Your task to perform on an android device: open app "Facebook" Image 0: 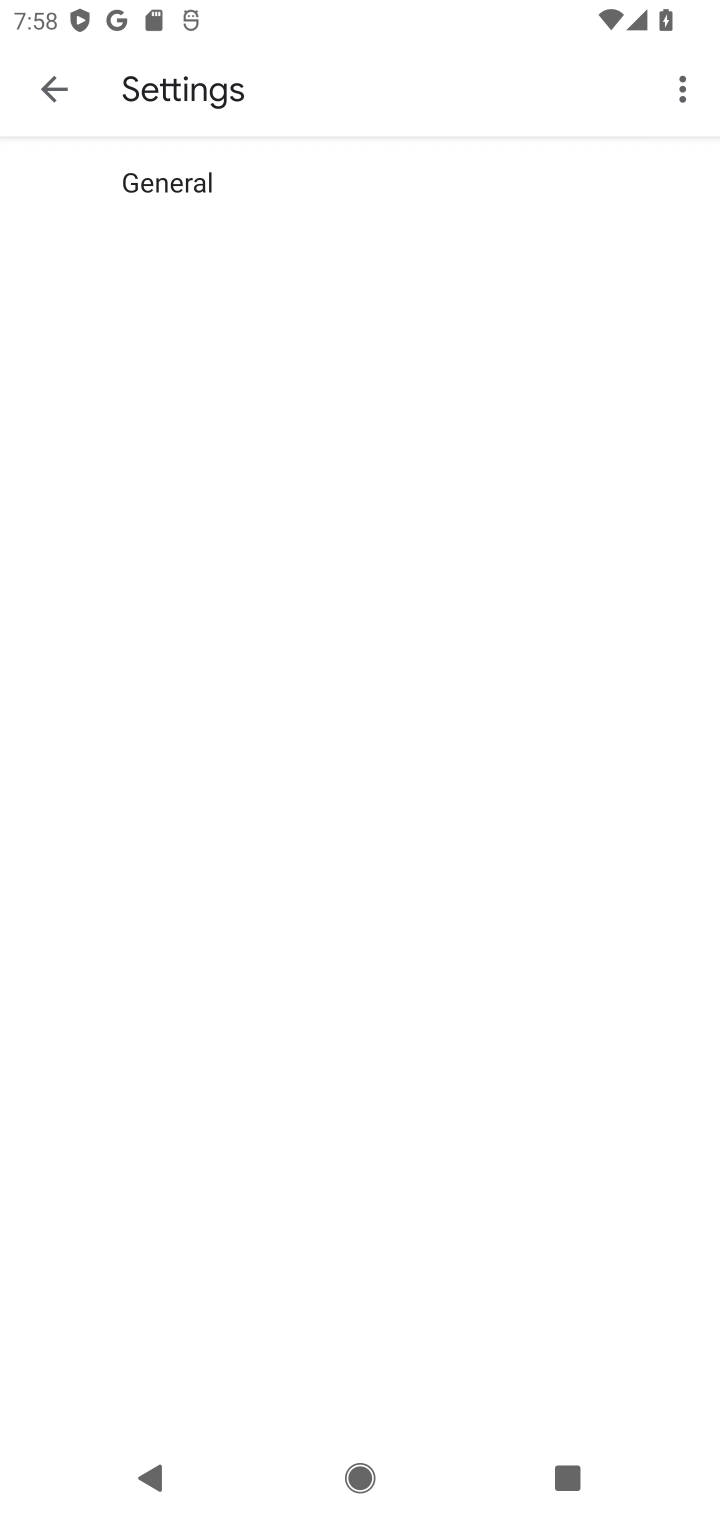
Step 0: press home button
Your task to perform on an android device: open app "Facebook" Image 1: 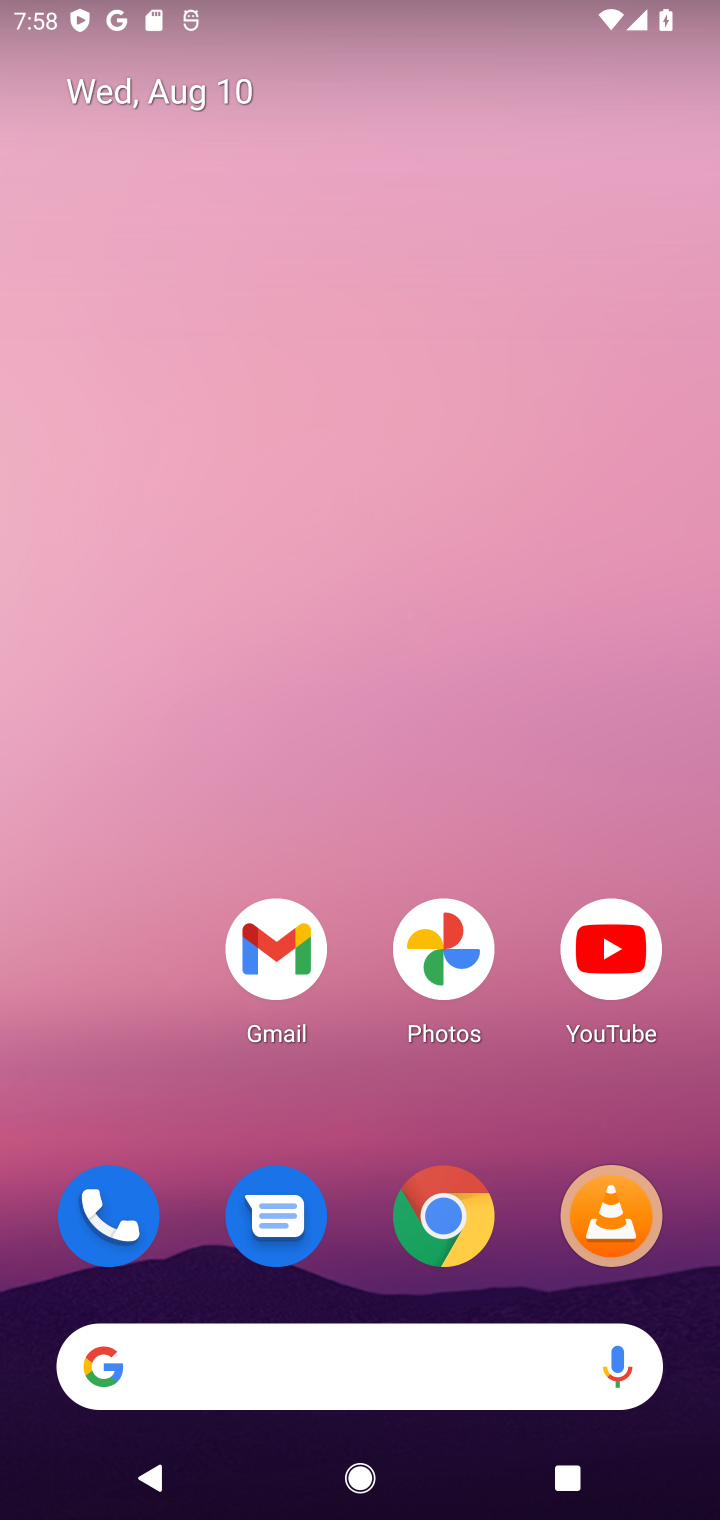
Step 1: drag from (261, 878) to (347, 202)
Your task to perform on an android device: open app "Facebook" Image 2: 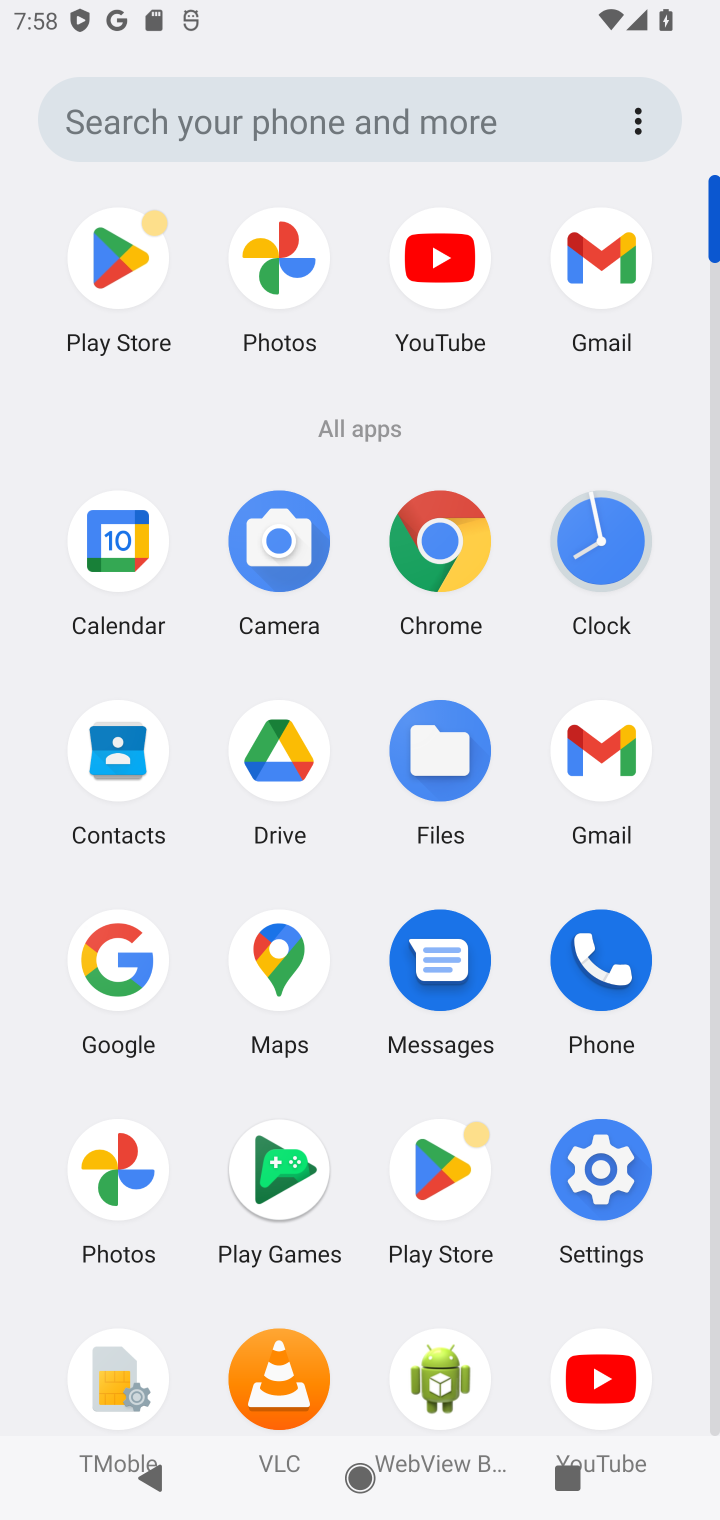
Step 2: click (109, 255)
Your task to perform on an android device: open app "Facebook" Image 3: 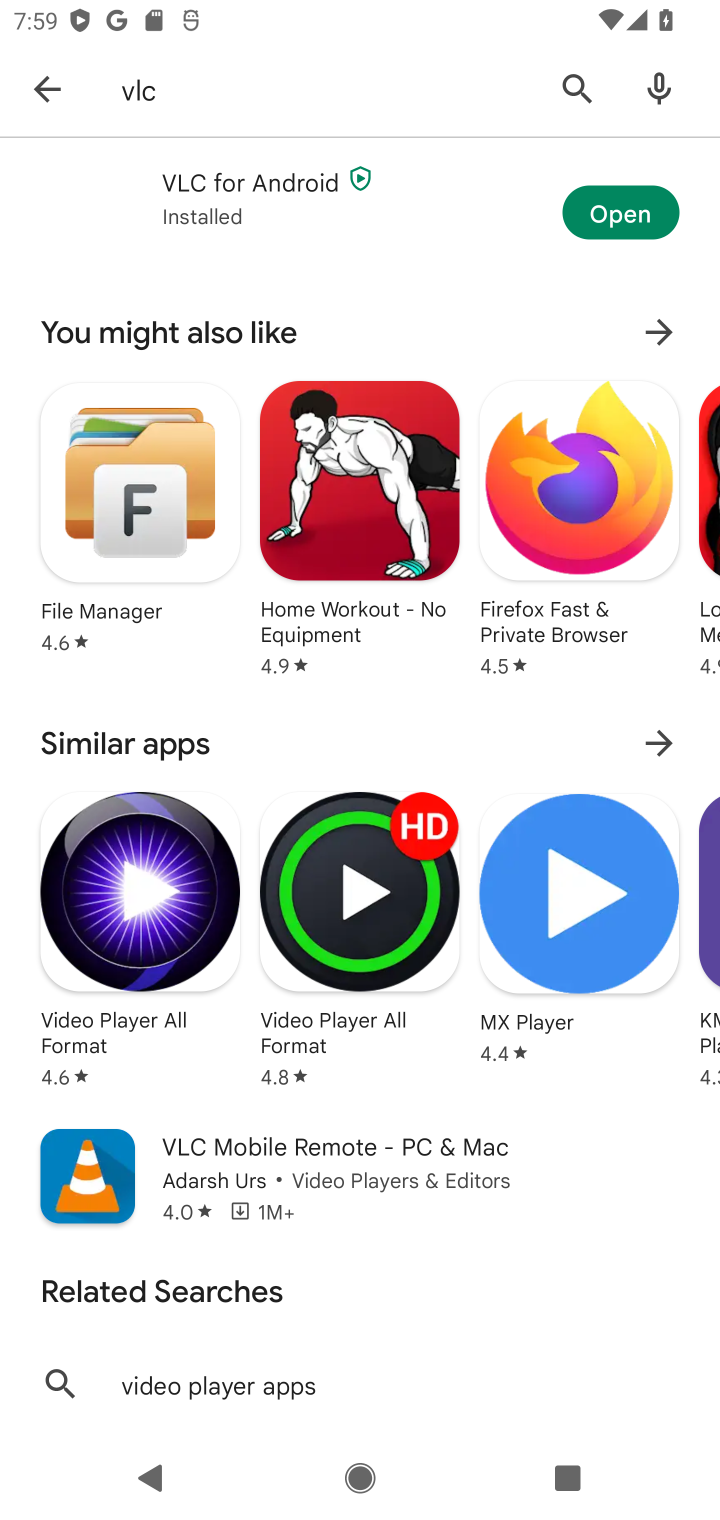
Step 3: click (561, 75)
Your task to perform on an android device: open app "Facebook" Image 4: 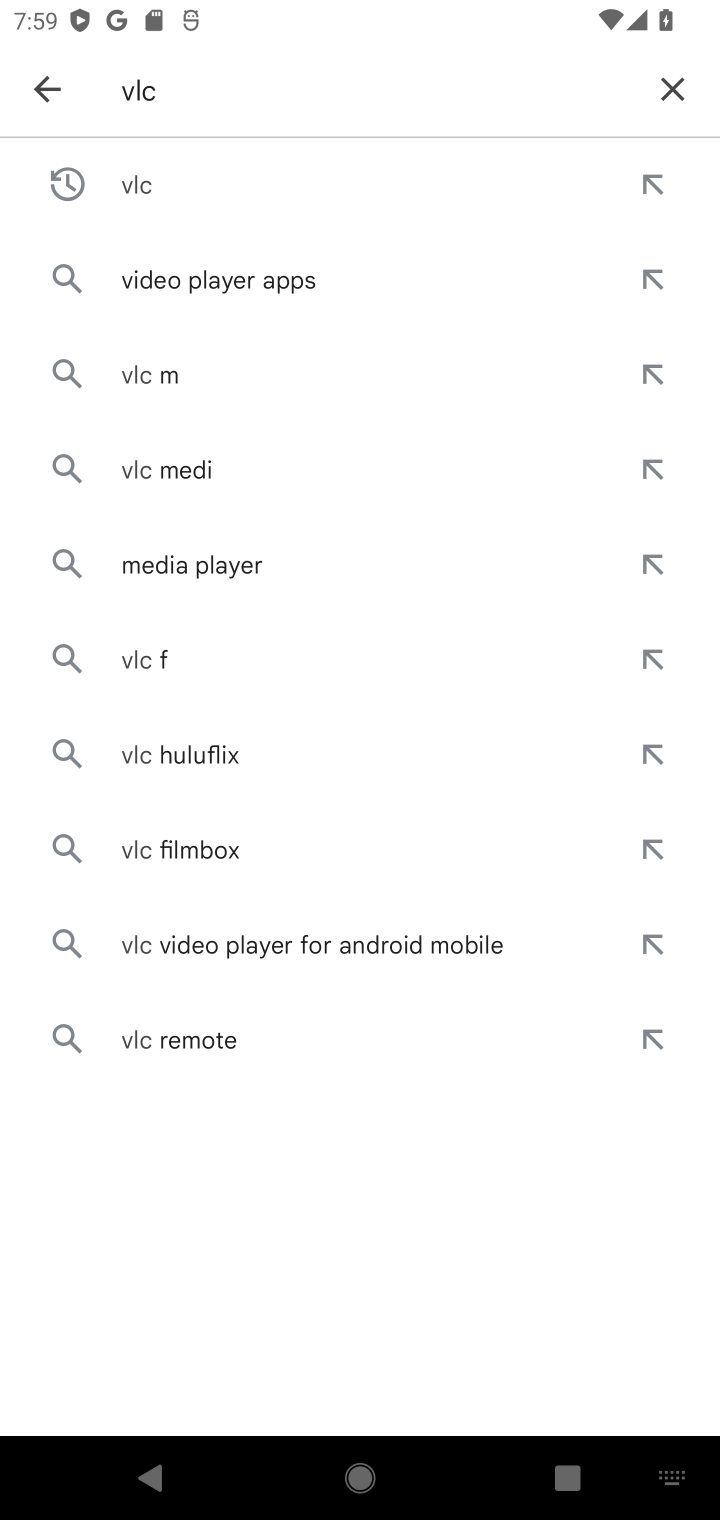
Step 4: click (693, 95)
Your task to perform on an android device: open app "Facebook" Image 5: 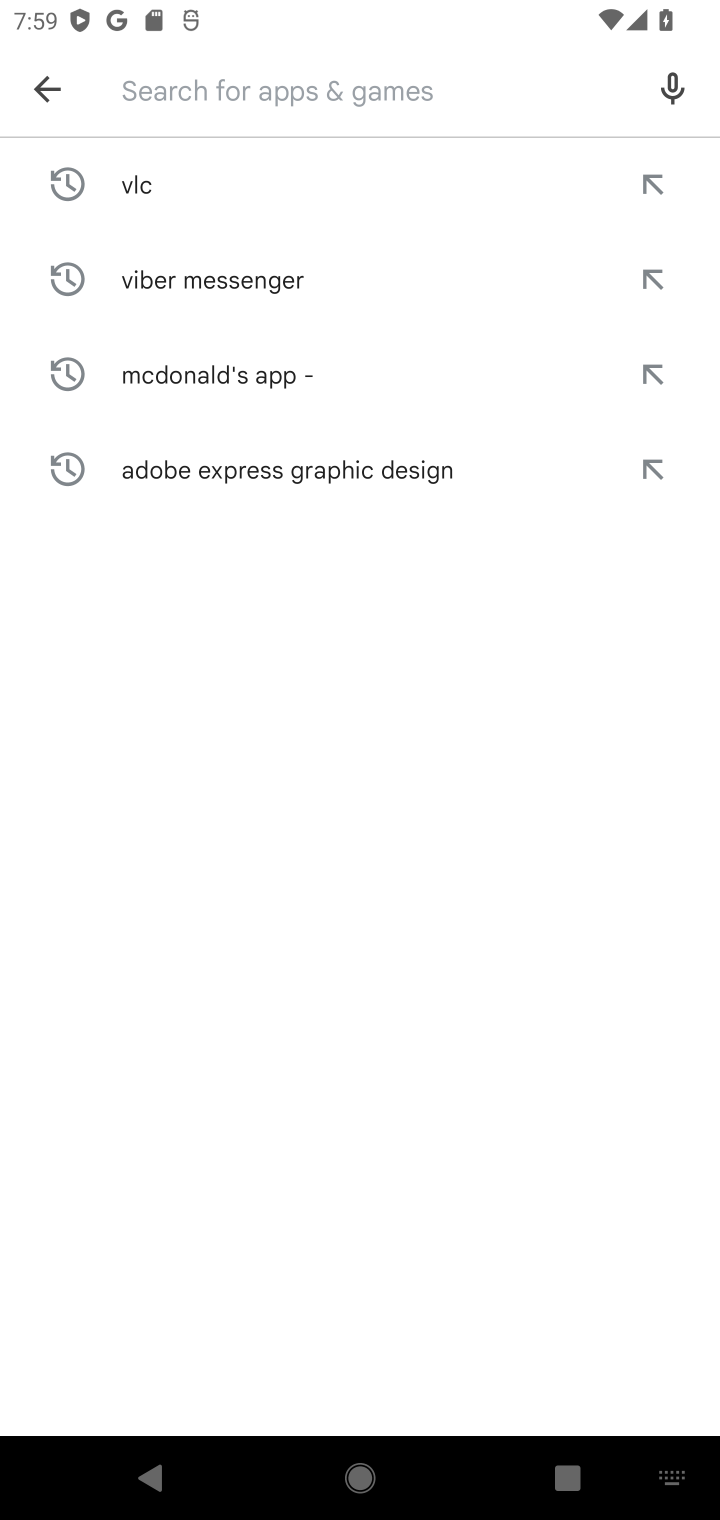
Step 5: click (326, 76)
Your task to perform on an android device: open app "Facebook" Image 6: 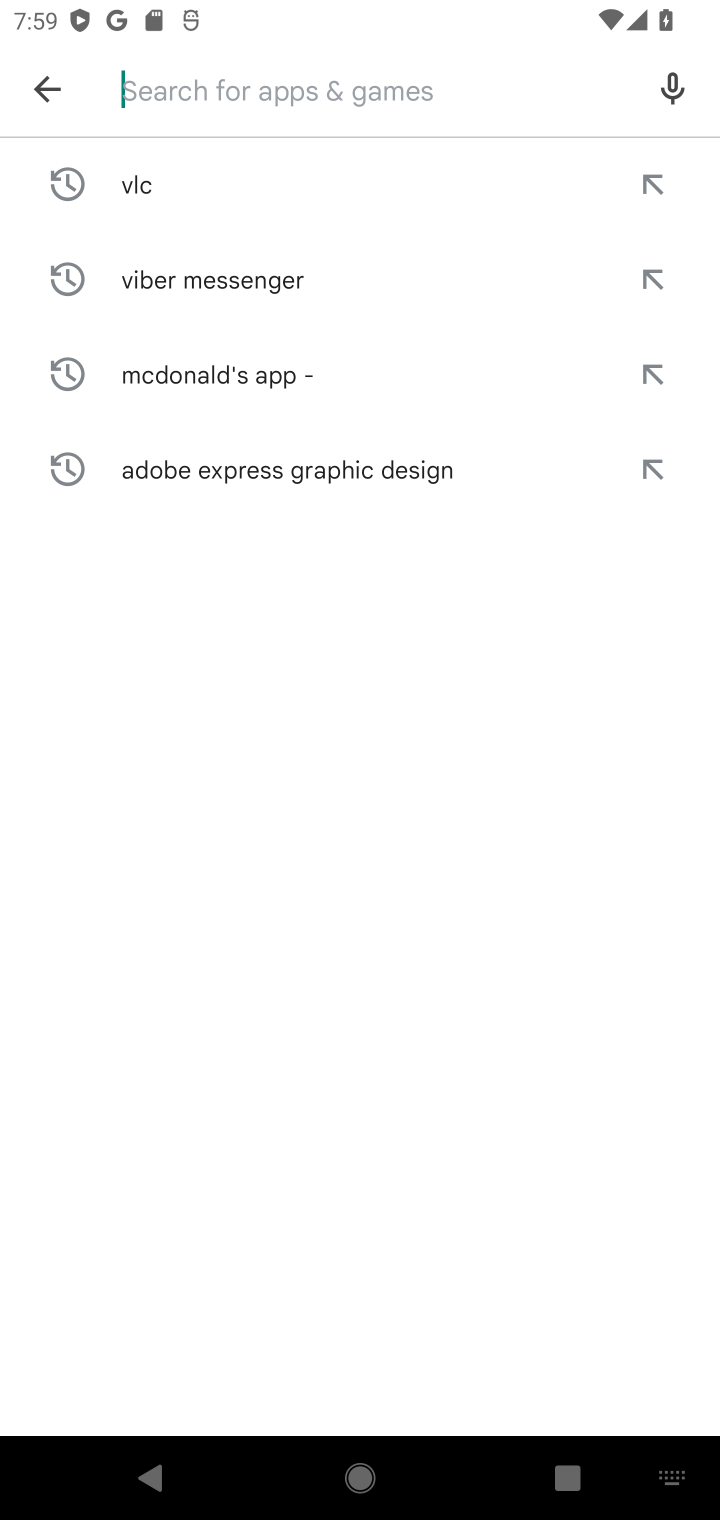
Step 6: type "facebook"
Your task to perform on an android device: open app "Facebook" Image 7: 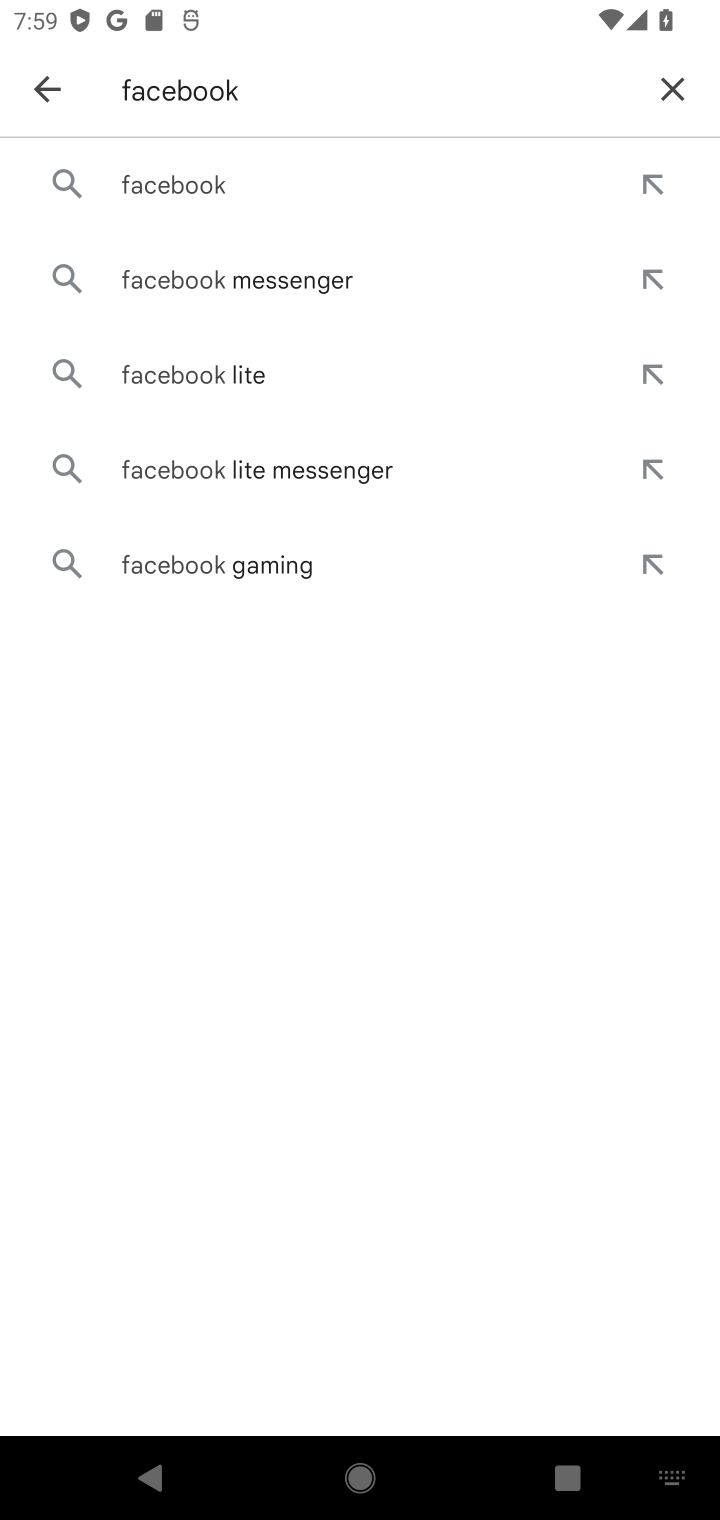
Step 7: click (170, 192)
Your task to perform on an android device: open app "Facebook" Image 8: 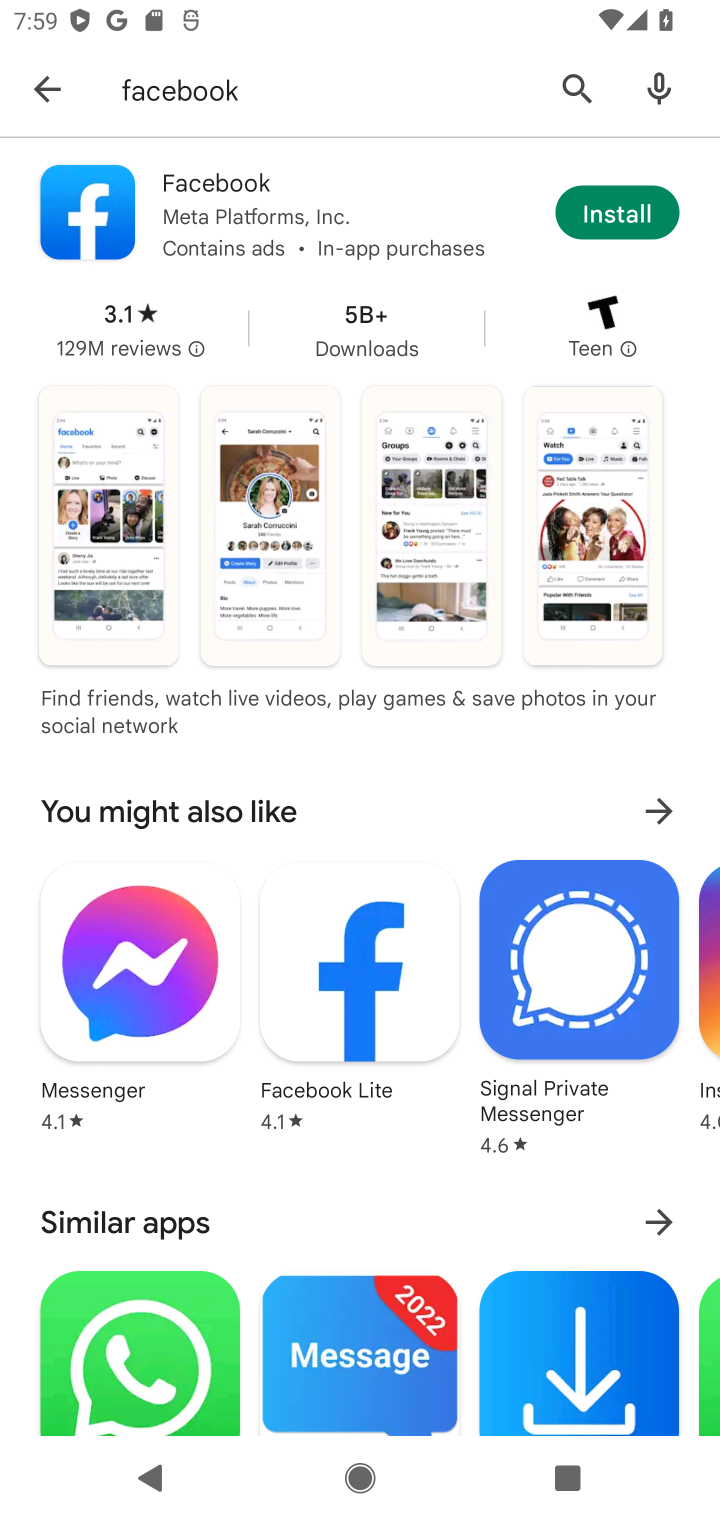
Step 8: task complete